Your task to perform on an android device: Toggle the flashlight Image 0: 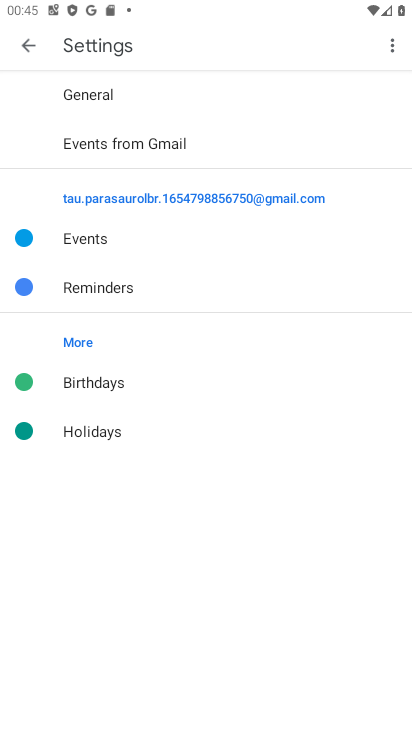
Step 0: press home button
Your task to perform on an android device: Toggle the flashlight Image 1: 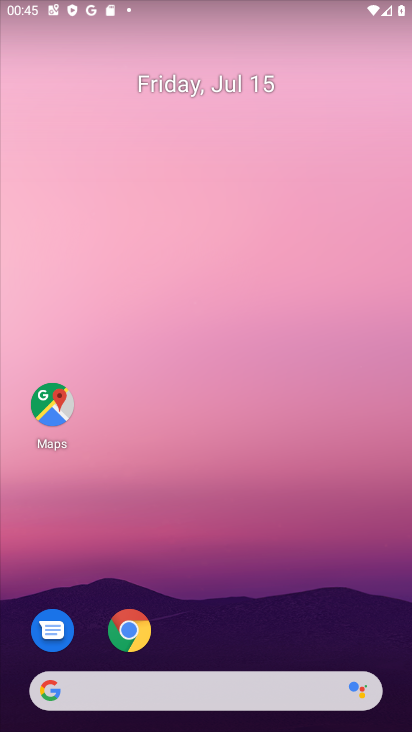
Step 1: drag from (211, 610) to (179, 43)
Your task to perform on an android device: Toggle the flashlight Image 2: 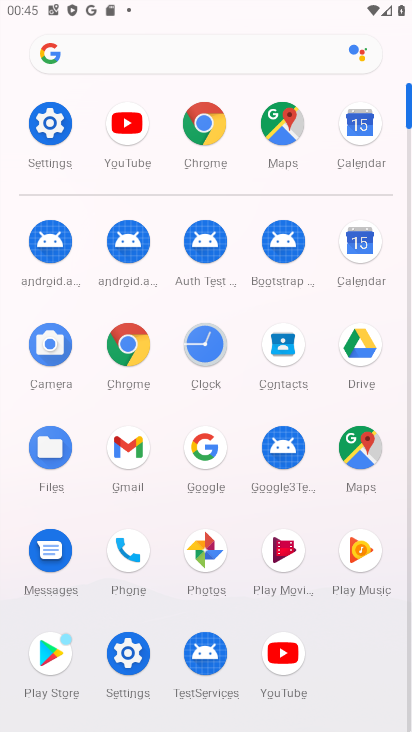
Step 2: click (54, 143)
Your task to perform on an android device: Toggle the flashlight Image 3: 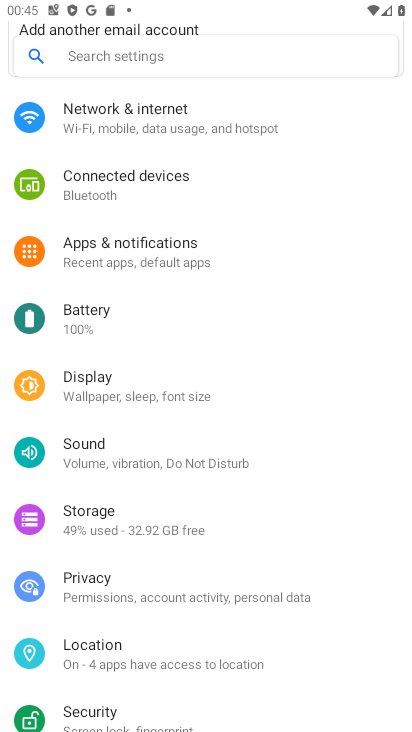
Step 3: click (258, 409)
Your task to perform on an android device: Toggle the flashlight Image 4: 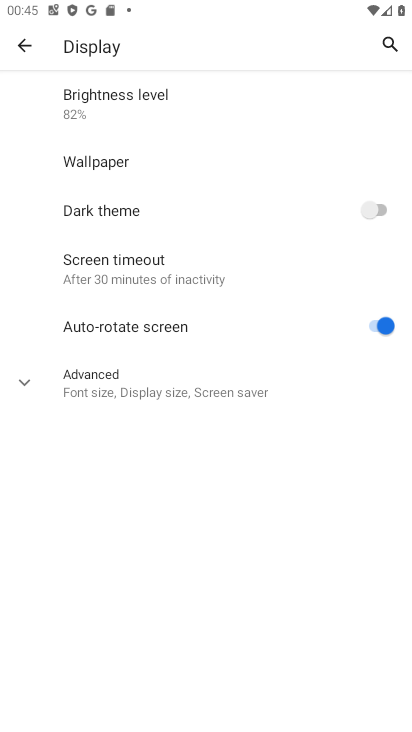
Step 4: task complete